Your task to perform on an android device: Go to Google maps Image 0: 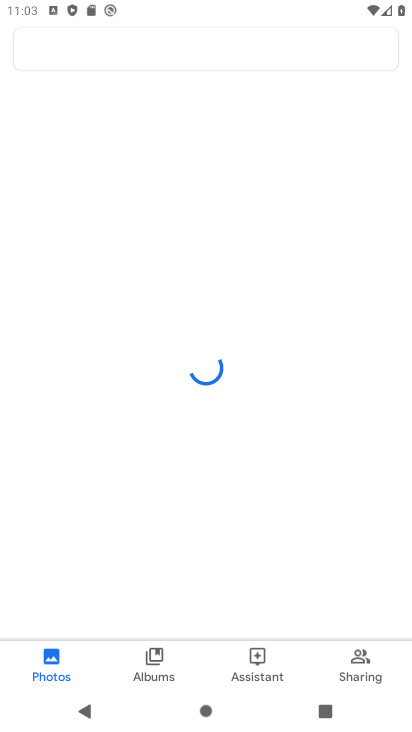
Step 0: press home button
Your task to perform on an android device: Go to Google maps Image 1: 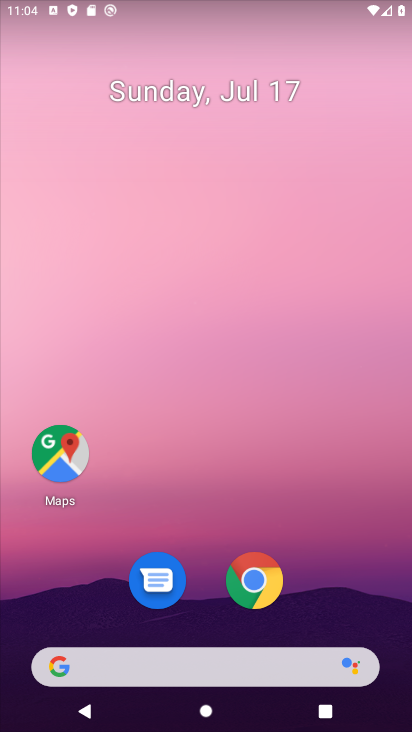
Step 1: drag from (243, 685) to (314, 232)
Your task to perform on an android device: Go to Google maps Image 2: 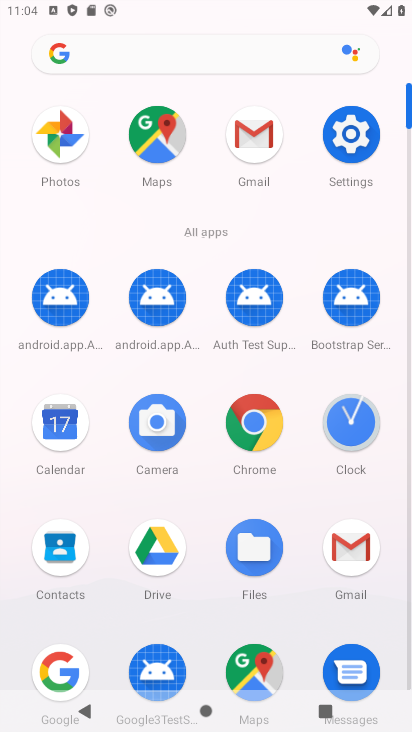
Step 2: drag from (257, 534) to (283, 258)
Your task to perform on an android device: Go to Google maps Image 3: 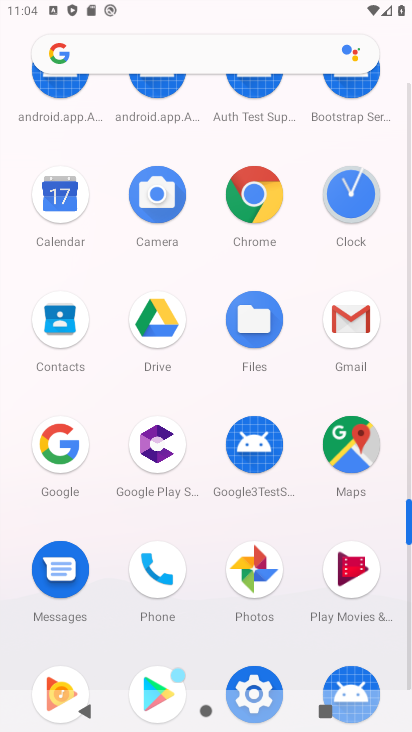
Step 3: click (351, 478)
Your task to perform on an android device: Go to Google maps Image 4: 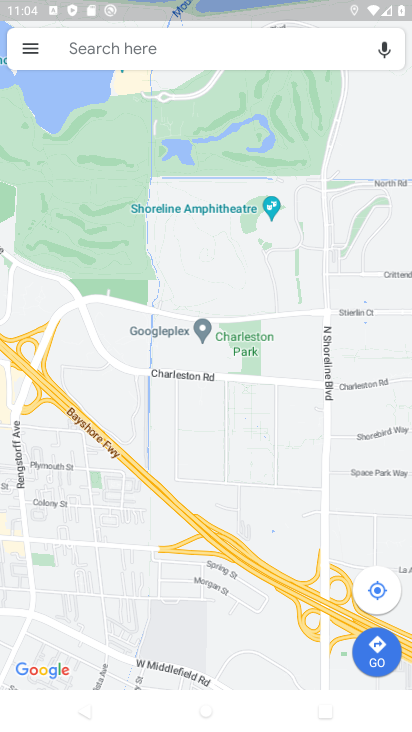
Step 4: task complete